Your task to perform on an android device: Open display settings Image 0: 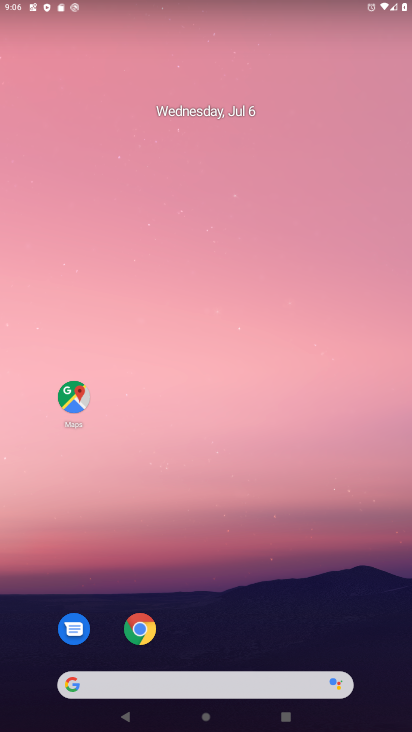
Step 0: drag from (40, 554) to (249, 59)
Your task to perform on an android device: Open display settings Image 1: 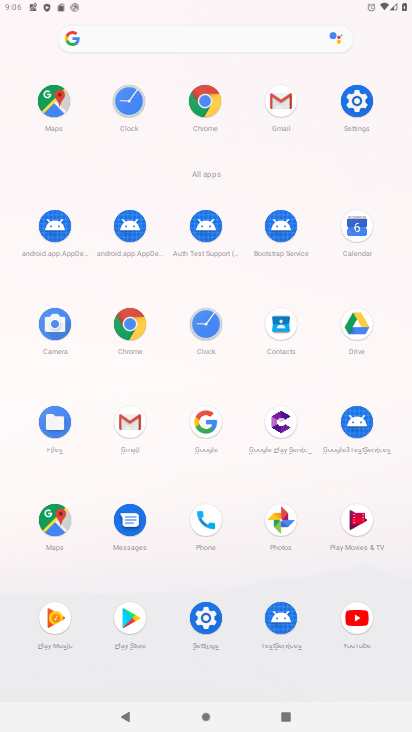
Step 1: click (367, 106)
Your task to perform on an android device: Open display settings Image 2: 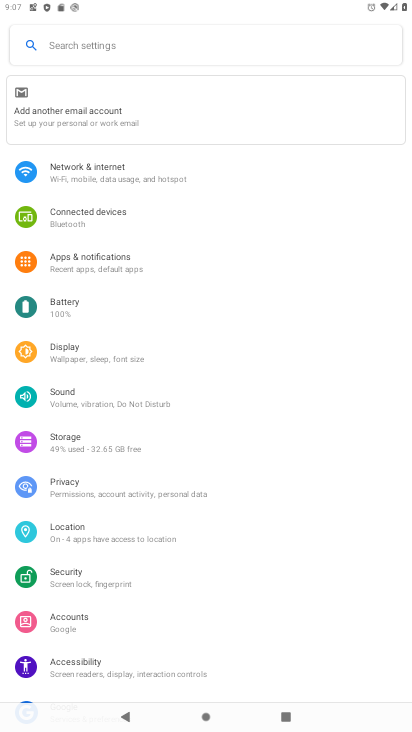
Step 2: click (132, 357)
Your task to perform on an android device: Open display settings Image 3: 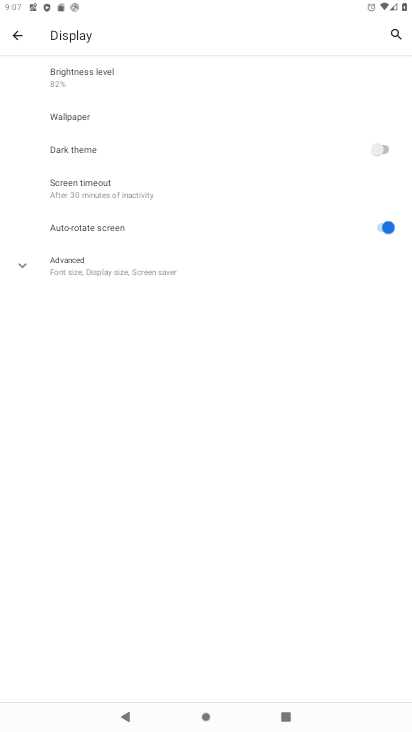
Step 3: task complete